Your task to perform on an android device: empty trash in google photos Image 0: 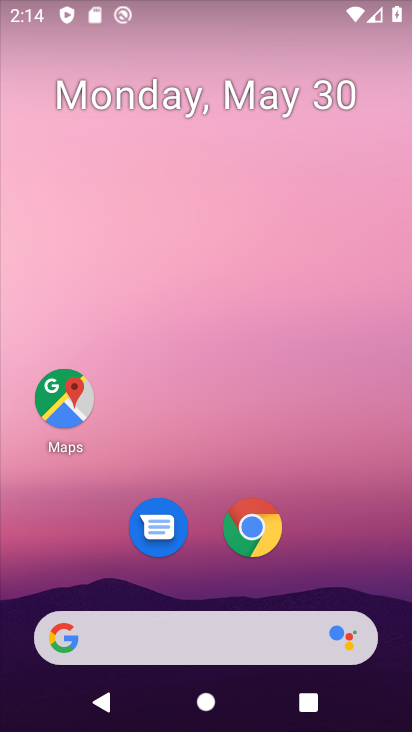
Step 0: drag from (332, 521) to (312, 0)
Your task to perform on an android device: empty trash in google photos Image 1: 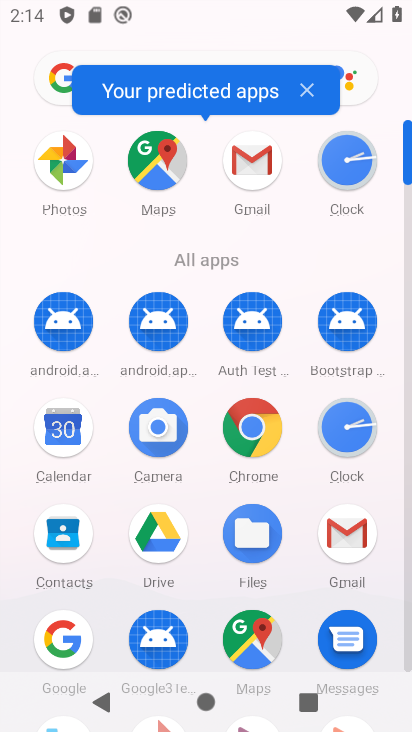
Step 1: drag from (302, 388) to (281, 96)
Your task to perform on an android device: empty trash in google photos Image 2: 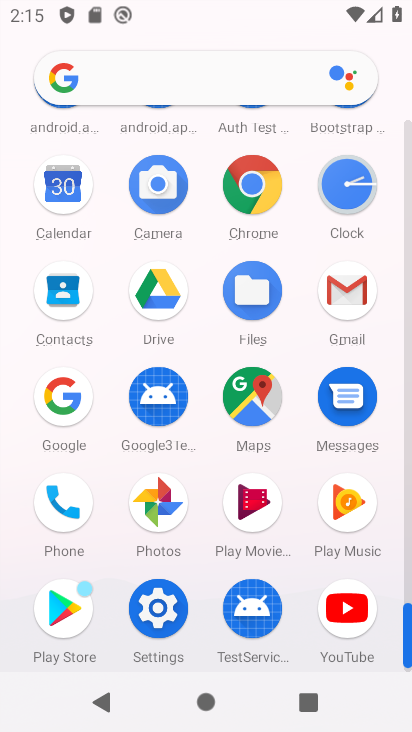
Step 2: click (153, 469)
Your task to perform on an android device: empty trash in google photos Image 3: 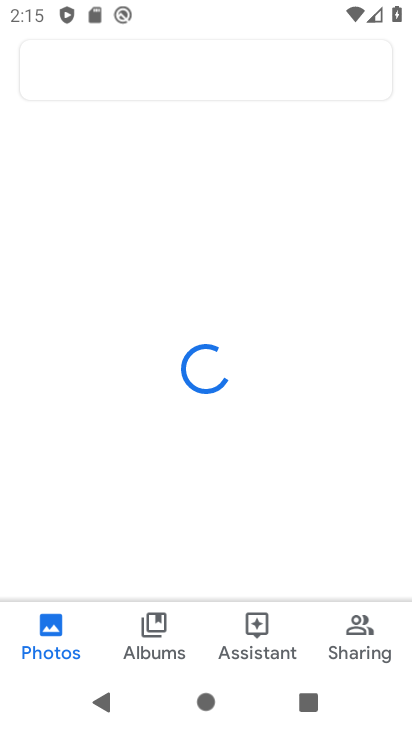
Step 3: click (153, 482)
Your task to perform on an android device: empty trash in google photos Image 4: 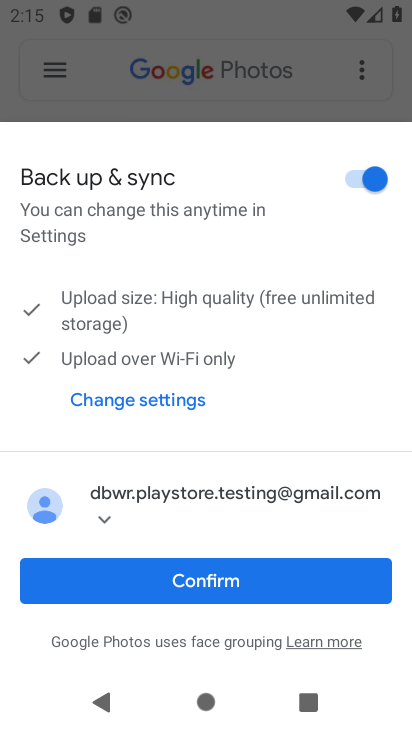
Step 4: click (176, 577)
Your task to perform on an android device: empty trash in google photos Image 5: 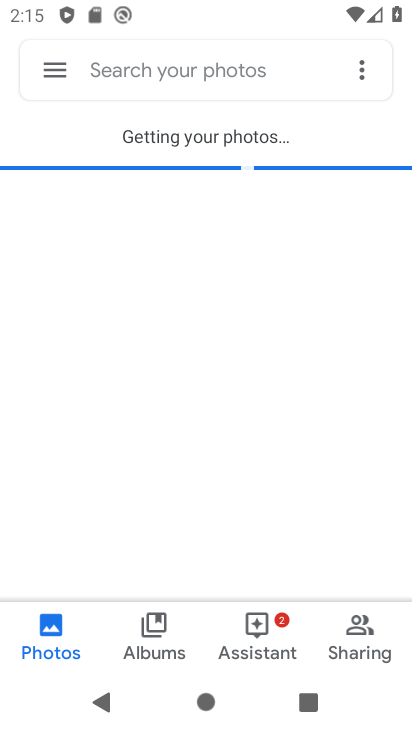
Step 5: click (61, 71)
Your task to perform on an android device: empty trash in google photos Image 6: 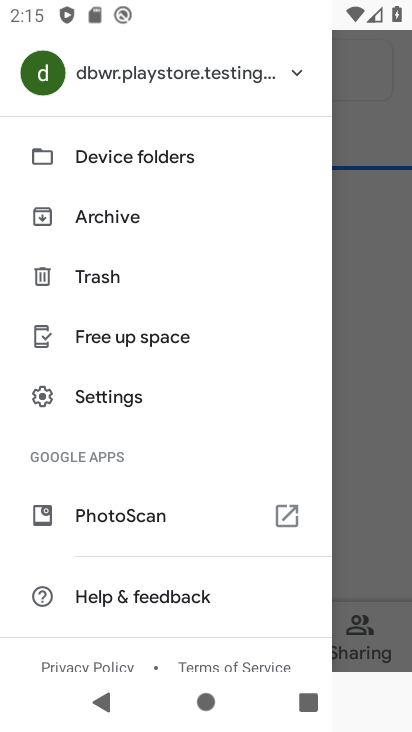
Step 6: click (89, 272)
Your task to perform on an android device: empty trash in google photos Image 7: 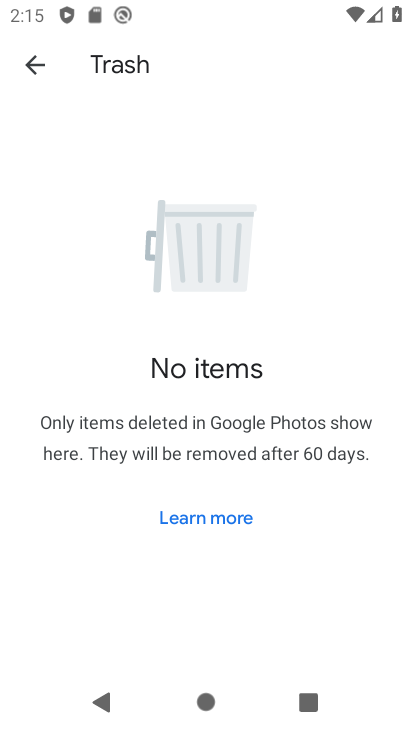
Step 7: task complete